Your task to perform on an android device: see tabs open on other devices in the chrome app Image 0: 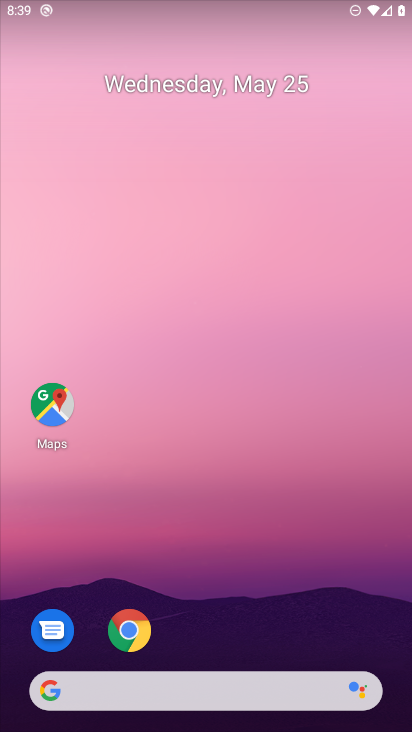
Step 0: click (128, 629)
Your task to perform on an android device: see tabs open on other devices in the chrome app Image 1: 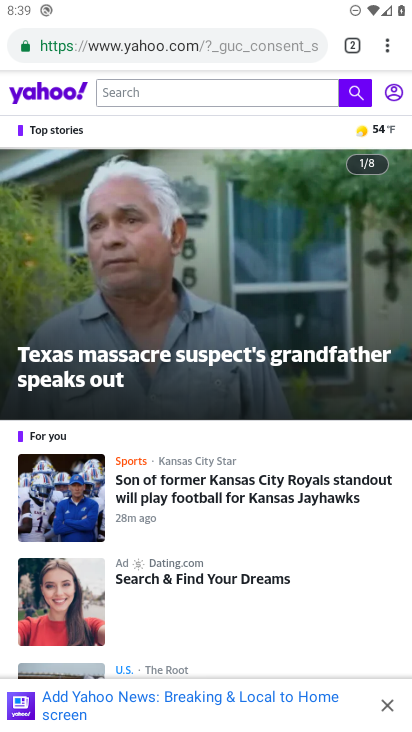
Step 1: click (356, 44)
Your task to perform on an android device: see tabs open on other devices in the chrome app Image 2: 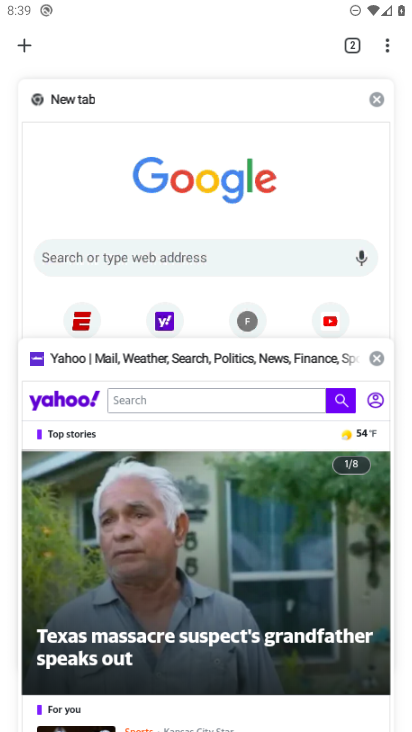
Step 2: task complete